Your task to perform on an android device: delete the emails in spam in the gmail app Image 0: 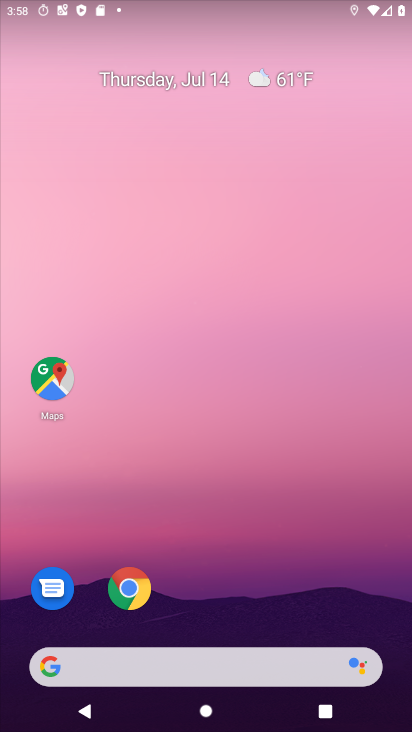
Step 0: drag from (168, 654) to (356, 120)
Your task to perform on an android device: delete the emails in spam in the gmail app Image 1: 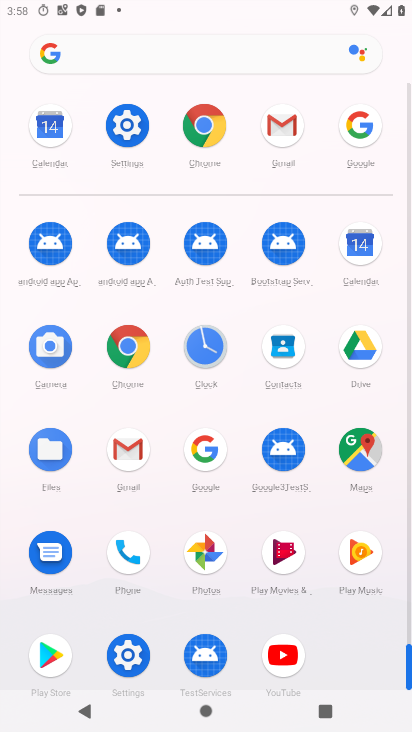
Step 1: click (281, 124)
Your task to perform on an android device: delete the emails in spam in the gmail app Image 2: 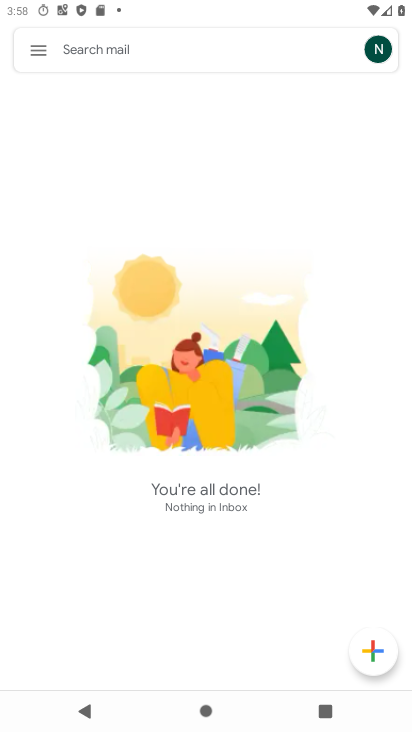
Step 2: click (40, 50)
Your task to perform on an android device: delete the emails in spam in the gmail app Image 3: 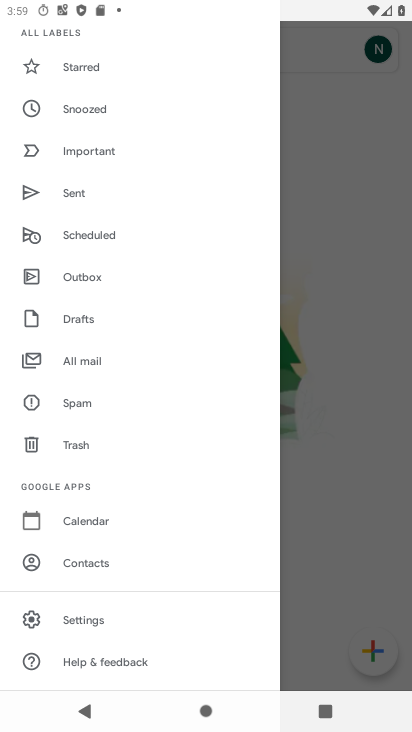
Step 3: click (70, 407)
Your task to perform on an android device: delete the emails in spam in the gmail app Image 4: 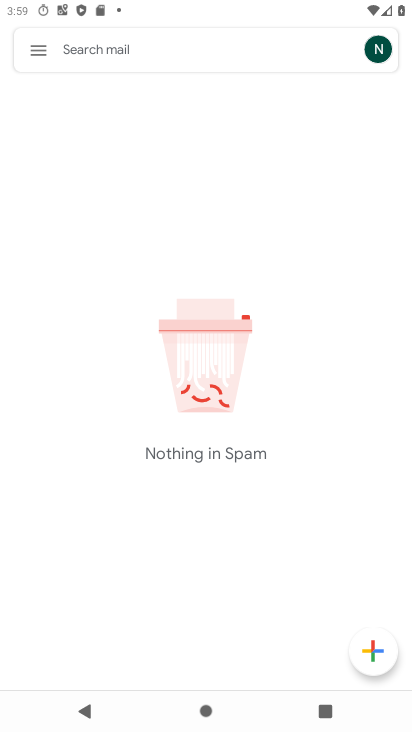
Step 4: task complete